Your task to perform on an android device: Check the news Image 0: 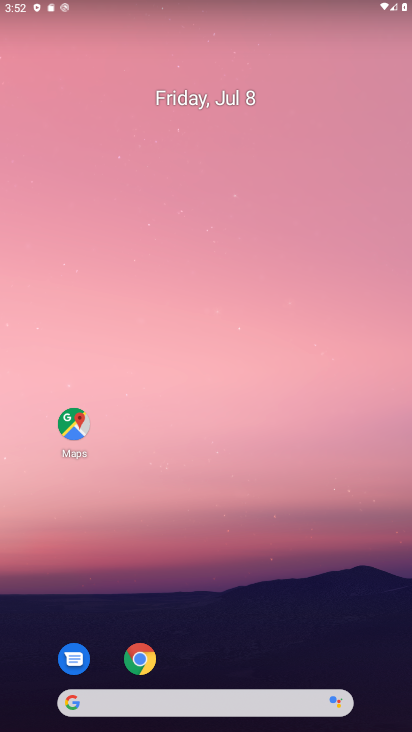
Step 0: click (212, 706)
Your task to perform on an android device: Check the news Image 1: 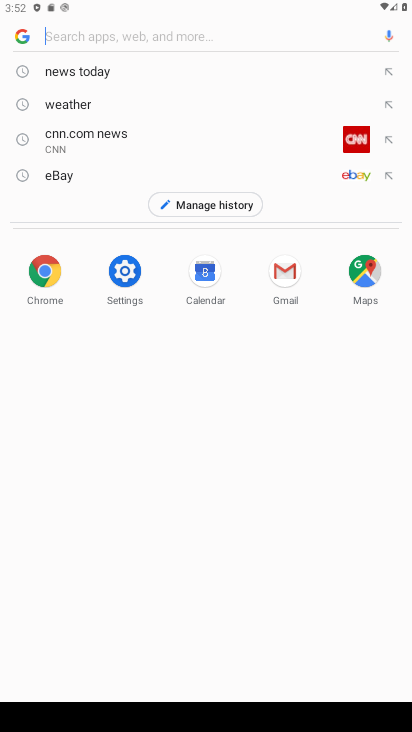
Step 1: click (118, 69)
Your task to perform on an android device: Check the news Image 2: 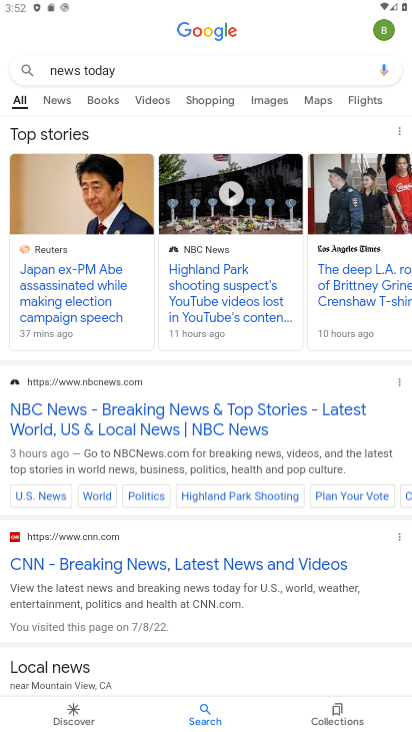
Step 2: task complete